Your task to perform on an android device: add a label to a message in the gmail app Image 0: 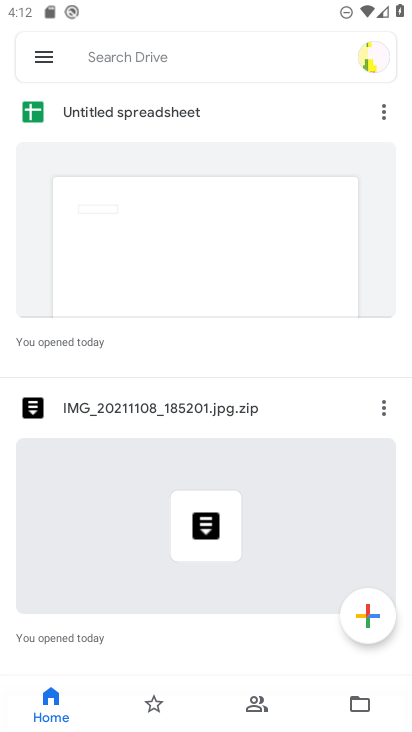
Step 0: press home button
Your task to perform on an android device: add a label to a message in the gmail app Image 1: 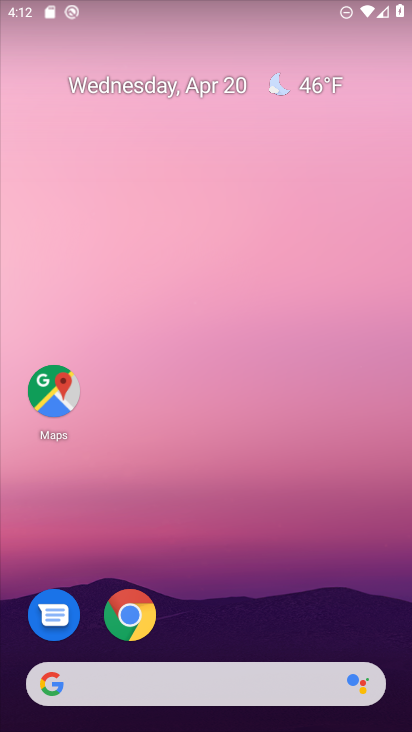
Step 1: drag from (251, 584) to (349, 120)
Your task to perform on an android device: add a label to a message in the gmail app Image 2: 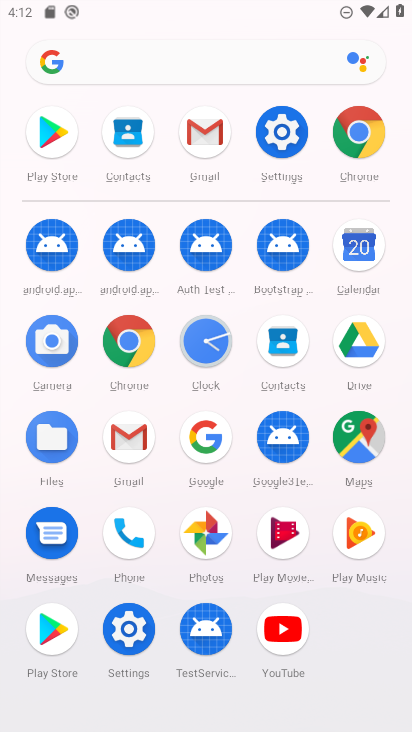
Step 2: click (182, 137)
Your task to perform on an android device: add a label to a message in the gmail app Image 3: 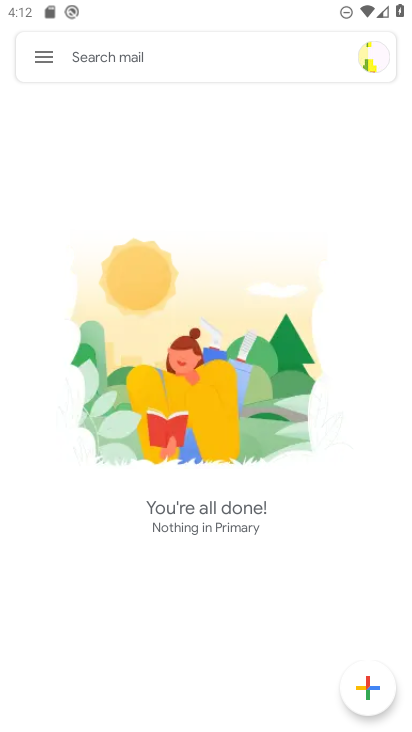
Step 3: click (42, 74)
Your task to perform on an android device: add a label to a message in the gmail app Image 4: 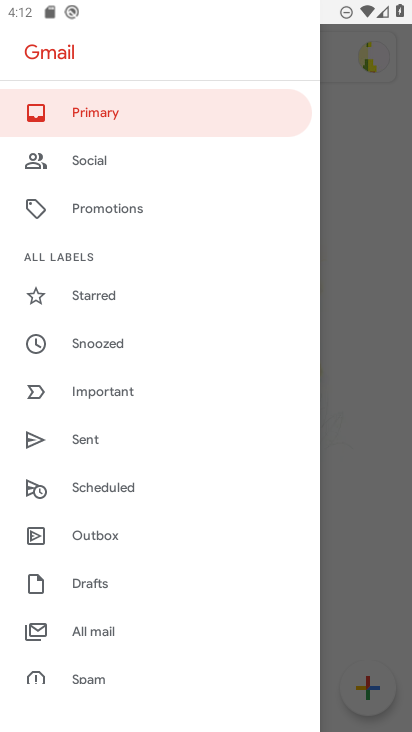
Step 4: click (106, 638)
Your task to perform on an android device: add a label to a message in the gmail app Image 5: 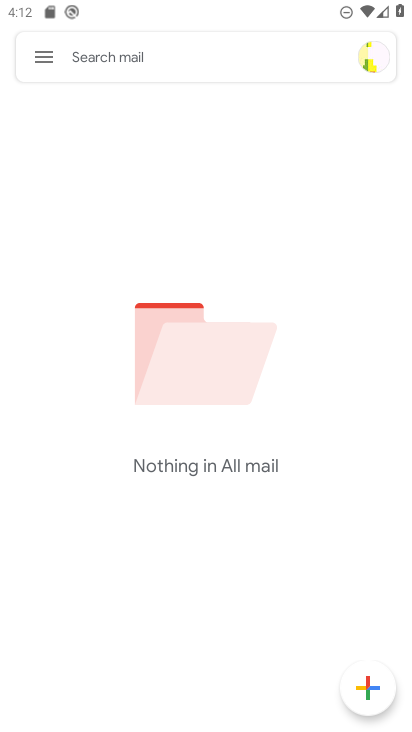
Step 5: task complete